Your task to perform on an android device: check data usage Image 0: 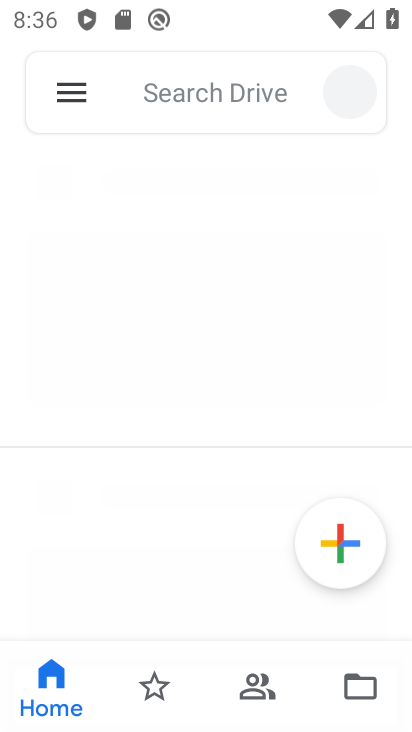
Step 0: press home button
Your task to perform on an android device: check data usage Image 1: 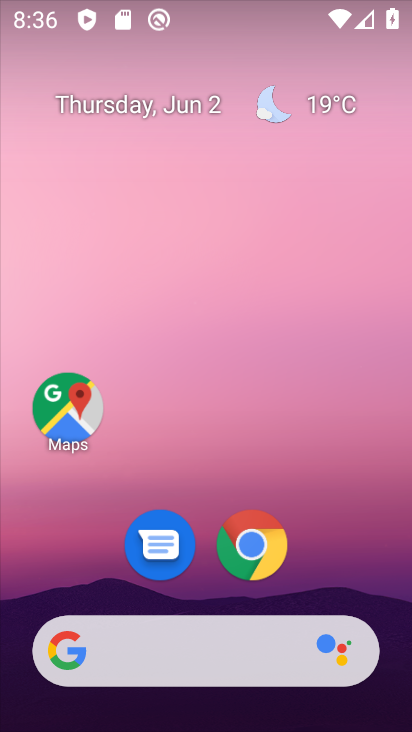
Step 1: drag from (397, 687) to (347, 41)
Your task to perform on an android device: check data usage Image 2: 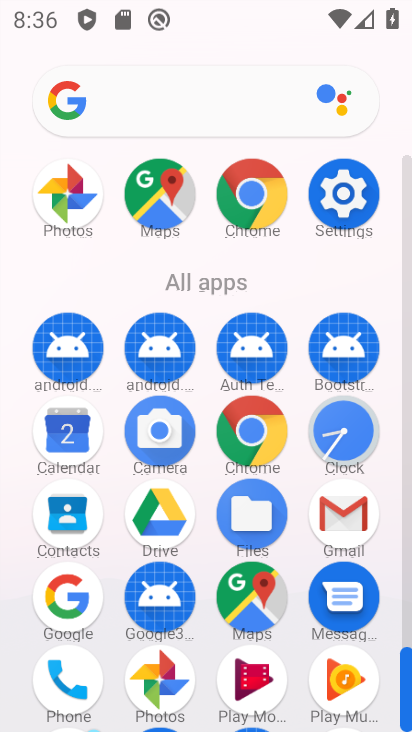
Step 2: click (345, 209)
Your task to perform on an android device: check data usage Image 3: 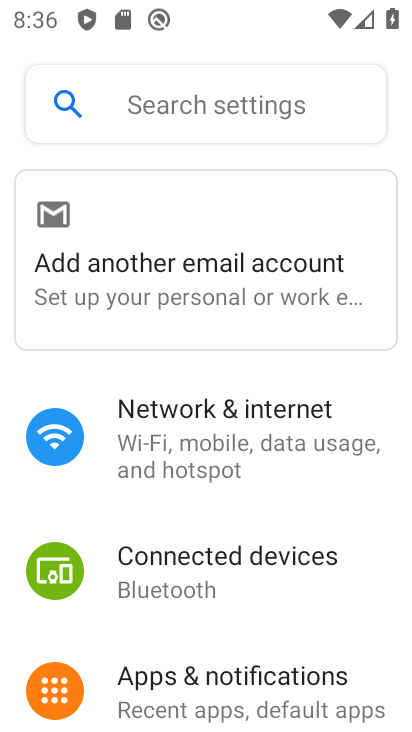
Step 3: click (181, 423)
Your task to perform on an android device: check data usage Image 4: 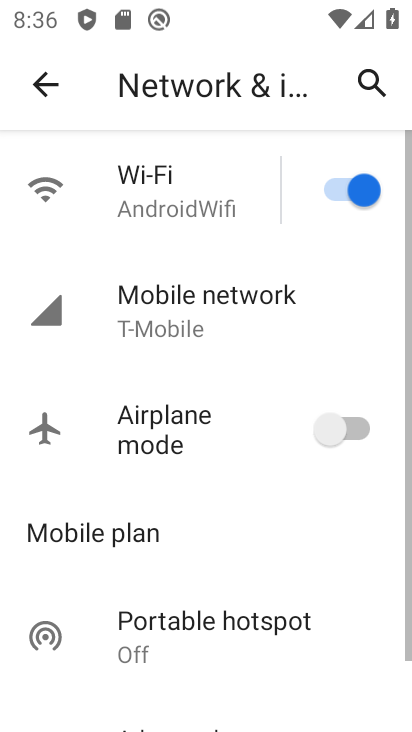
Step 4: click (171, 296)
Your task to perform on an android device: check data usage Image 5: 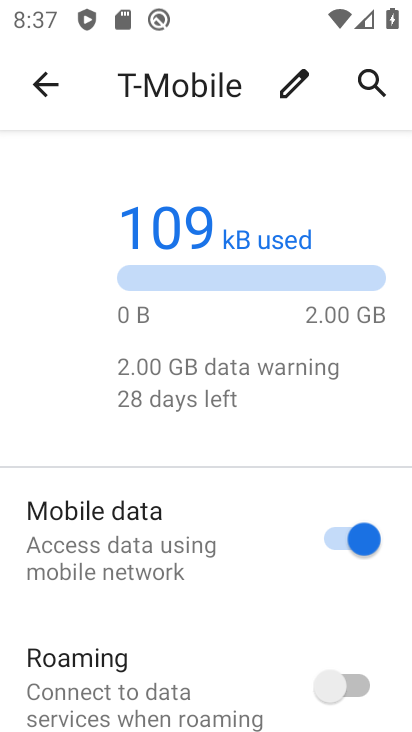
Step 5: task complete